Your task to perform on an android device: Open calendar and show me the first week of next month Image 0: 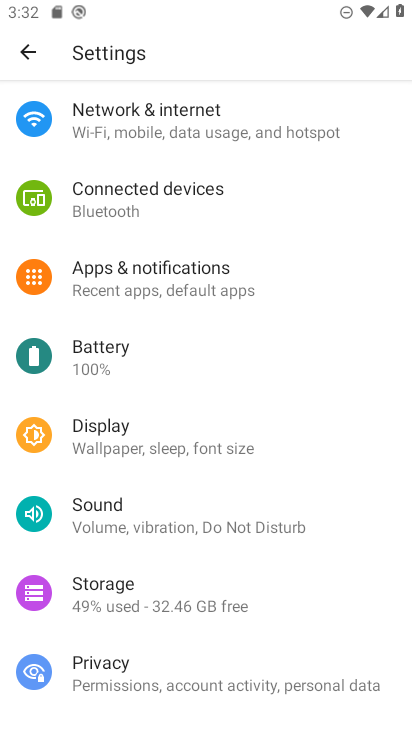
Step 0: press home button
Your task to perform on an android device: Open calendar and show me the first week of next month Image 1: 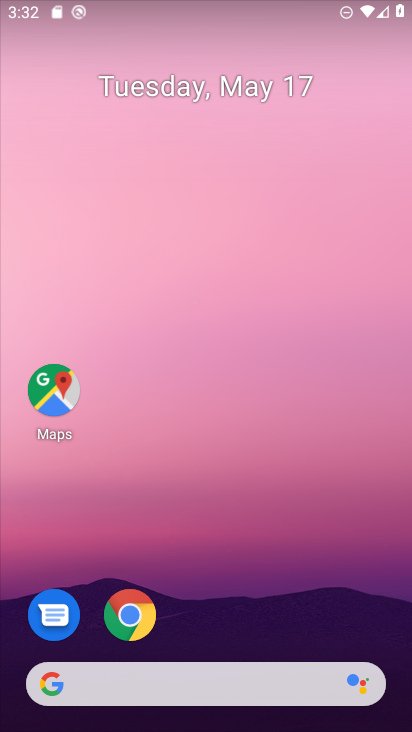
Step 1: drag from (264, 717) to (265, 227)
Your task to perform on an android device: Open calendar and show me the first week of next month Image 2: 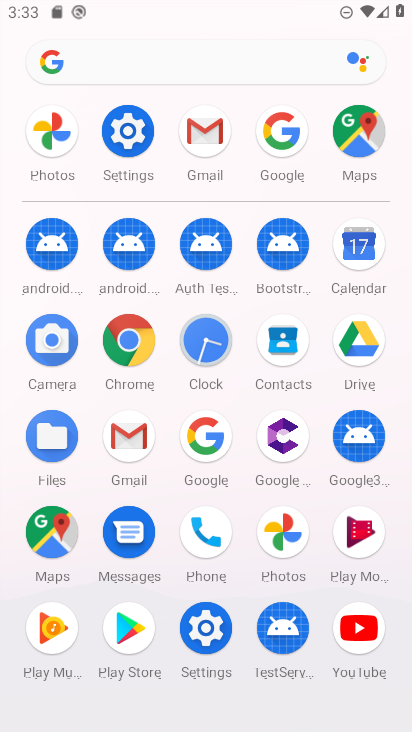
Step 2: click (357, 254)
Your task to perform on an android device: Open calendar and show me the first week of next month Image 3: 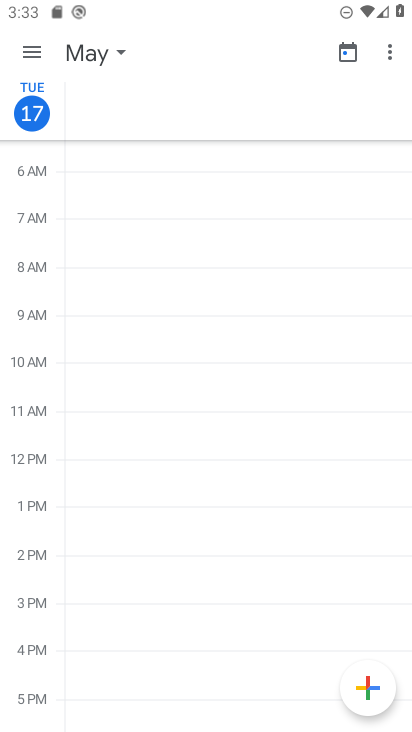
Step 3: click (70, 53)
Your task to perform on an android device: Open calendar and show me the first week of next month Image 4: 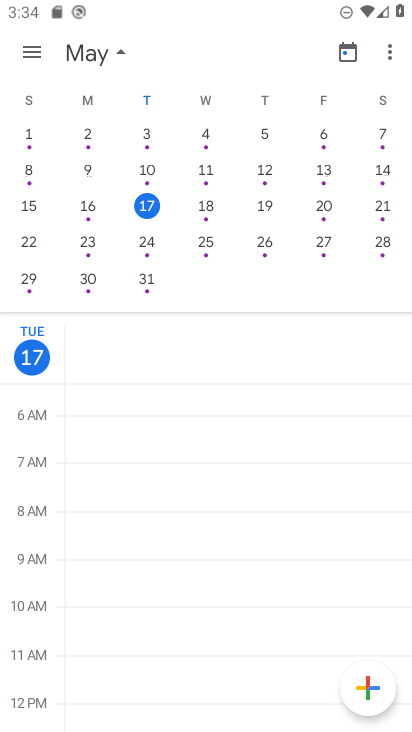
Step 4: drag from (307, 172) to (2, 148)
Your task to perform on an android device: Open calendar and show me the first week of next month Image 5: 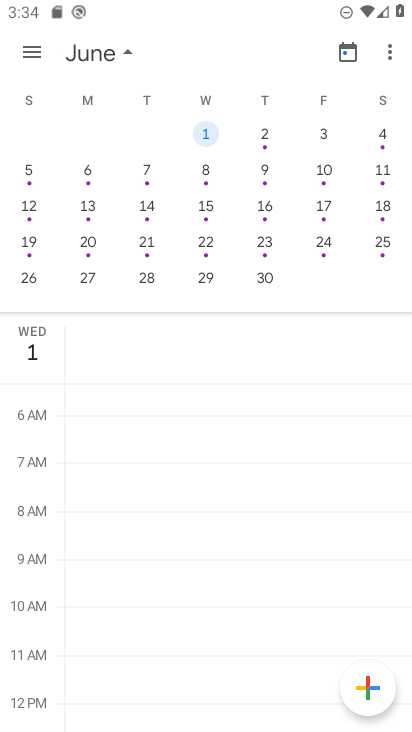
Step 5: click (84, 164)
Your task to perform on an android device: Open calendar and show me the first week of next month Image 6: 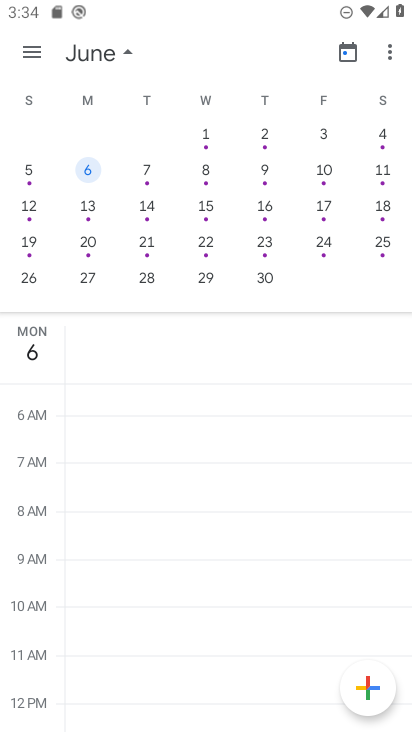
Step 6: click (87, 170)
Your task to perform on an android device: Open calendar and show me the first week of next month Image 7: 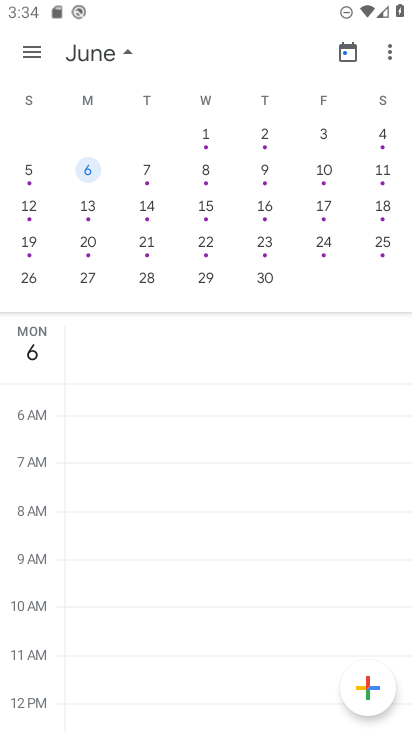
Step 7: click (34, 49)
Your task to perform on an android device: Open calendar and show me the first week of next month Image 8: 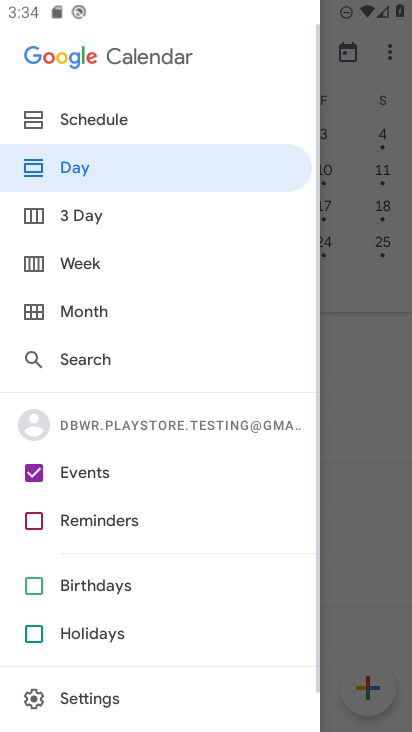
Step 8: click (78, 259)
Your task to perform on an android device: Open calendar and show me the first week of next month Image 9: 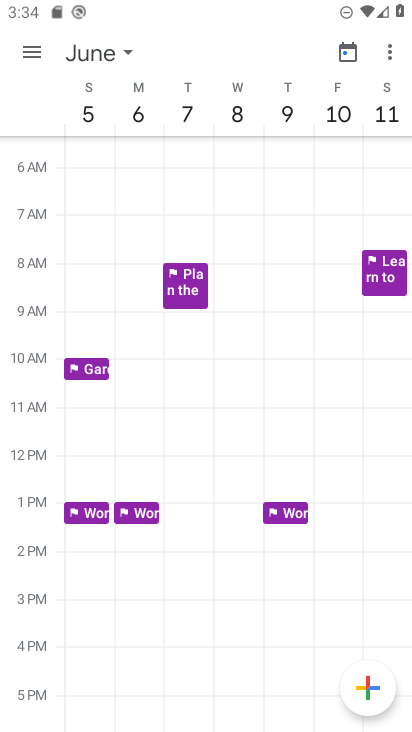
Step 9: task complete